Your task to perform on an android device: Add jbl flip 4 to the cart on ebay, then select checkout. Image 0: 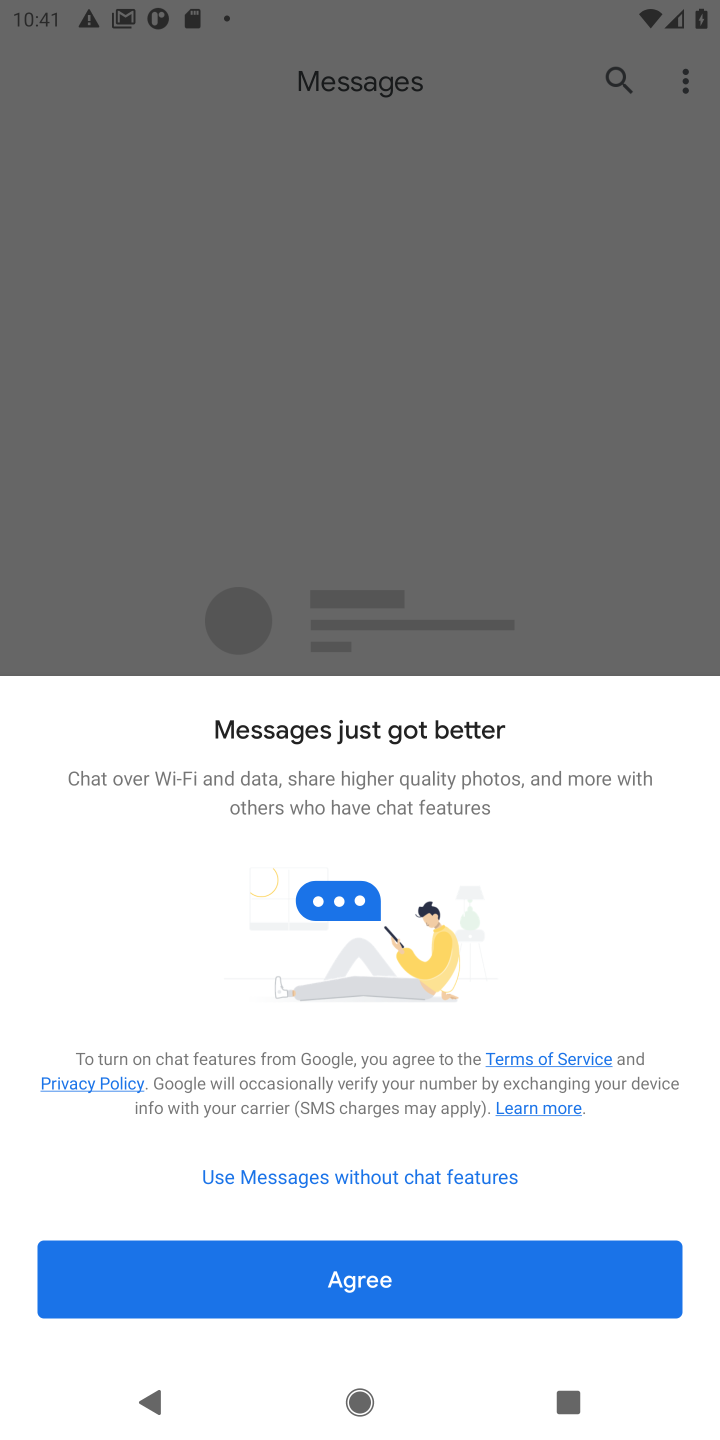
Step 0: press home button
Your task to perform on an android device: Add jbl flip 4 to the cart on ebay, then select checkout. Image 1: 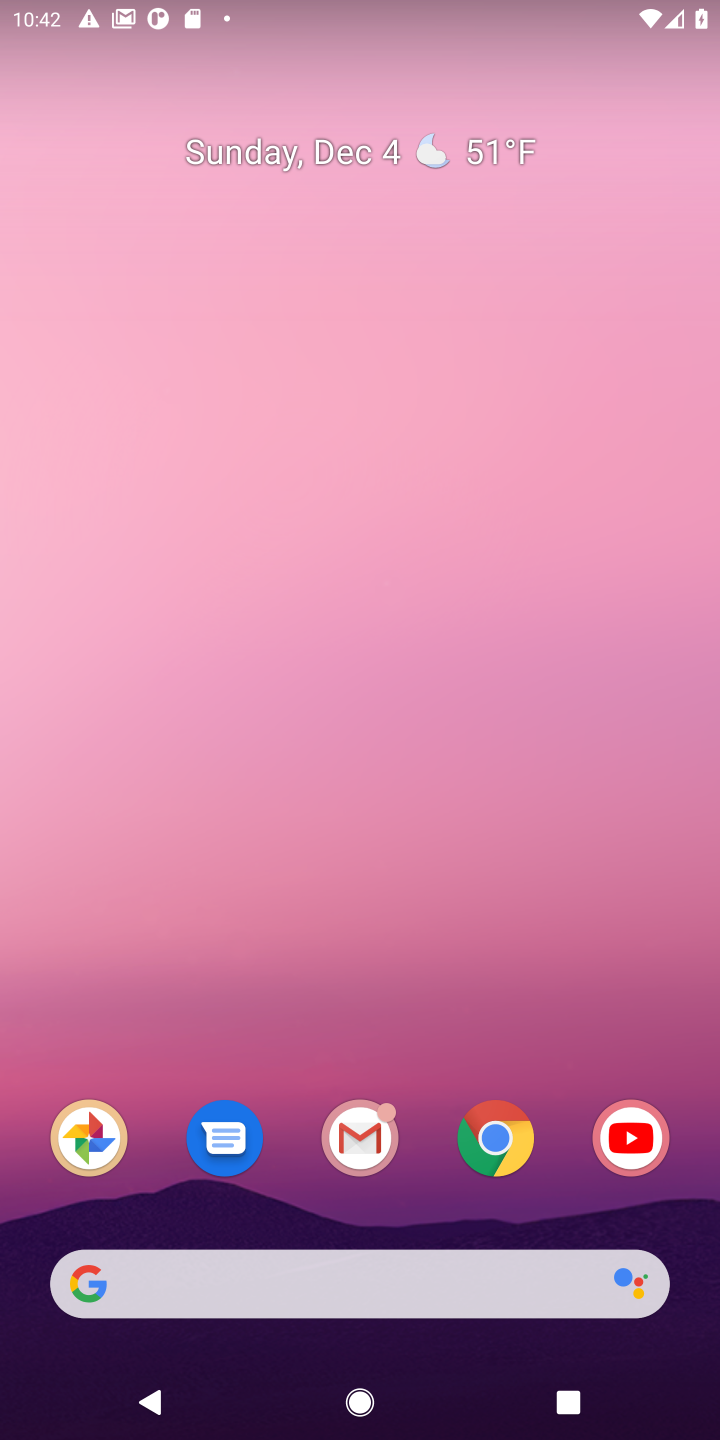
Step 1: click (499, 1141)
Your task to perform on an android device: Add jbl flip 4 to the cart on ebay, then select checkout. Image 2: 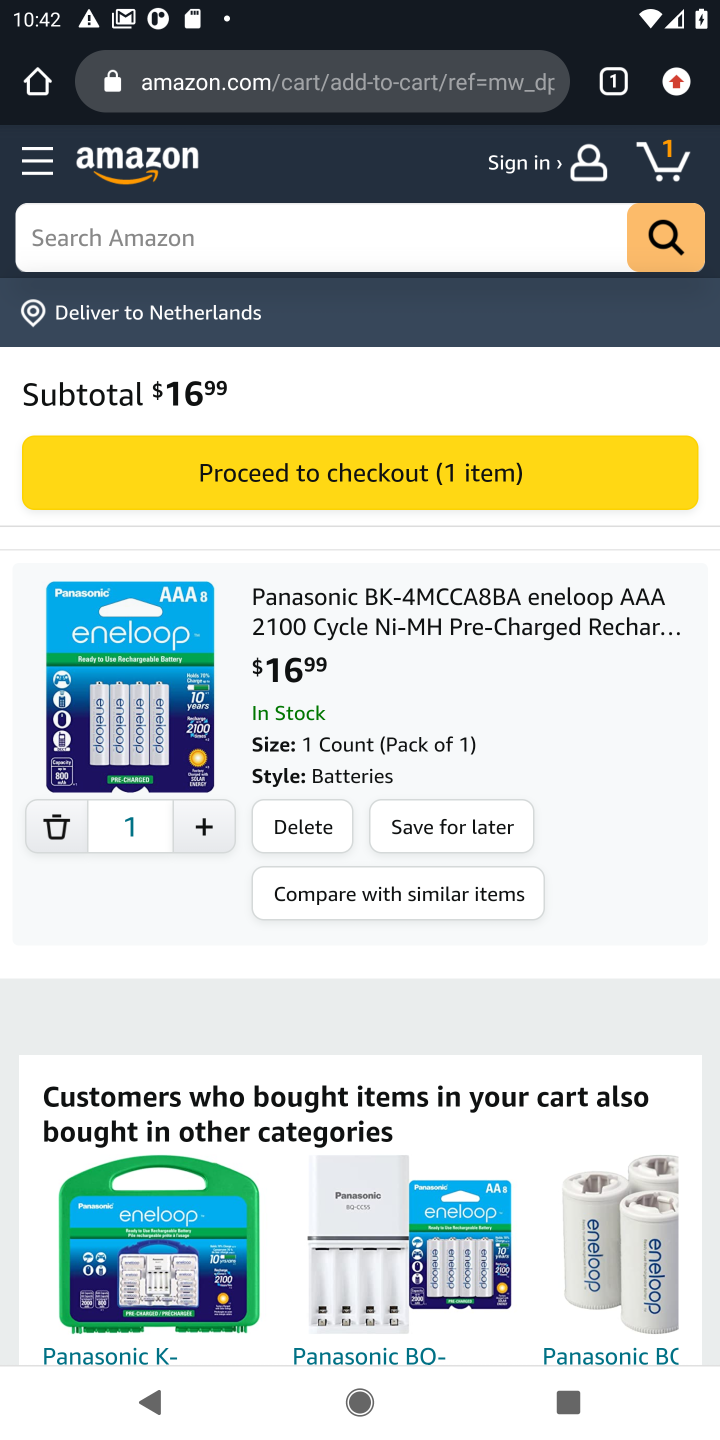
Step 2: click (405, 70)
Your task to perform on an android device: Add jbl flip 4 to the cart on ebay, then select checkout. Image 3: 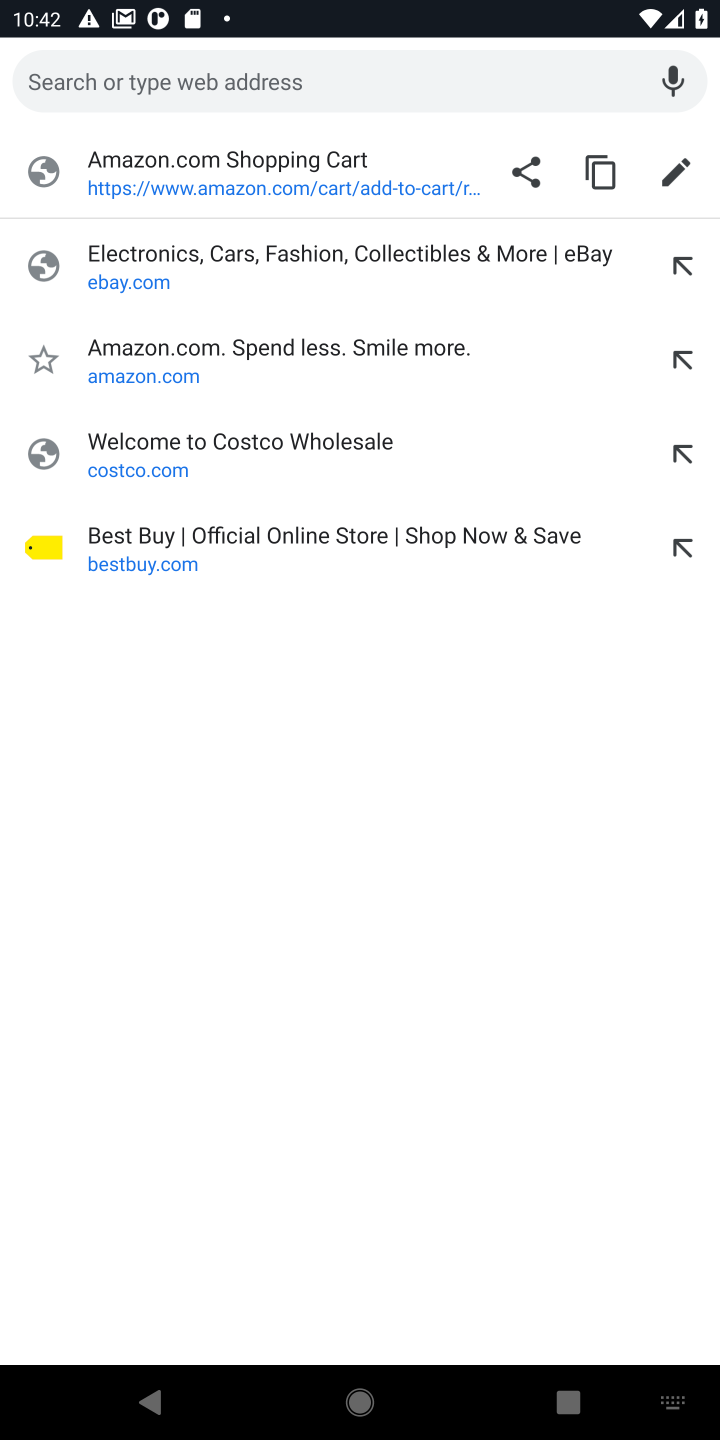
Step 3: click (266, 243)
Your task to perform on an android device: Add jbl flip 4 to the cart on ebay, then select checkout. Image 4: 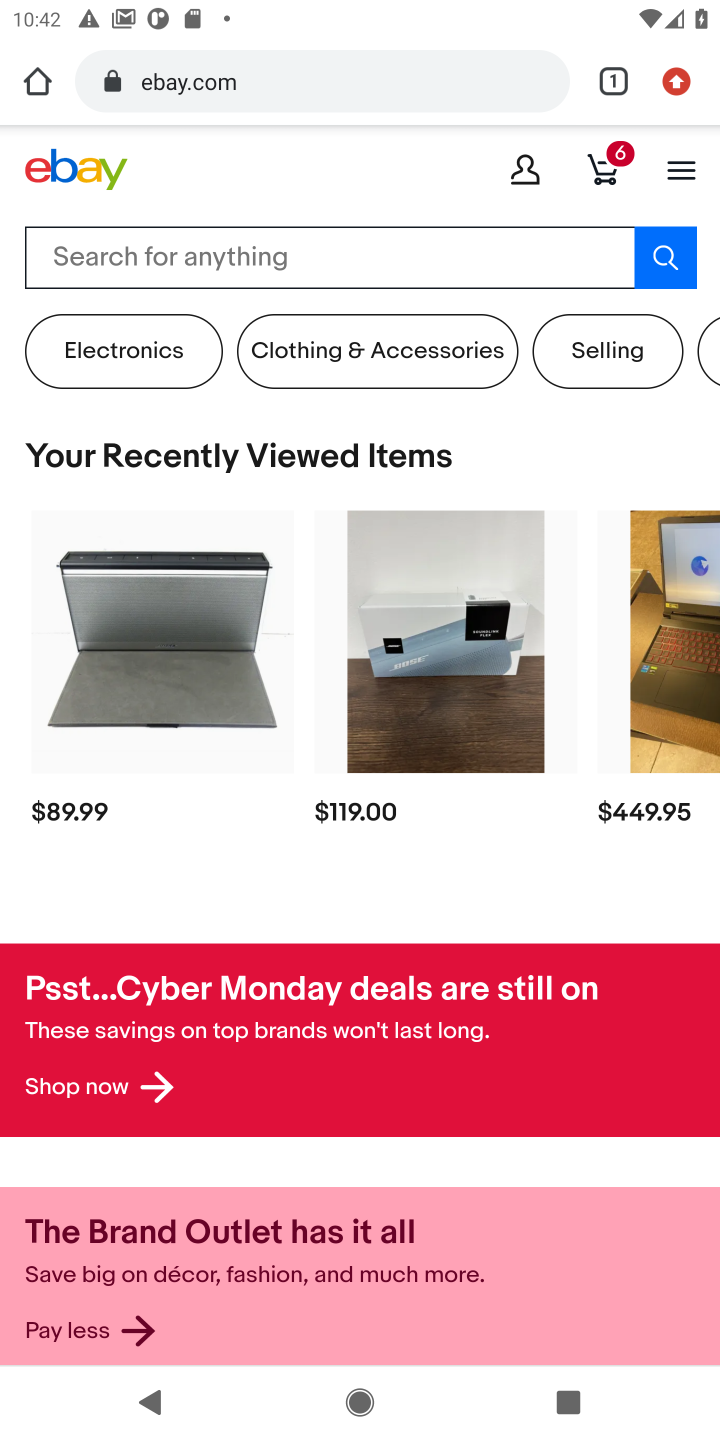
Step 4: click (301, 254)
Your task to perform on an android device: Add jbl flip 4 to the cart on ebay, then select checkout. Image 5: 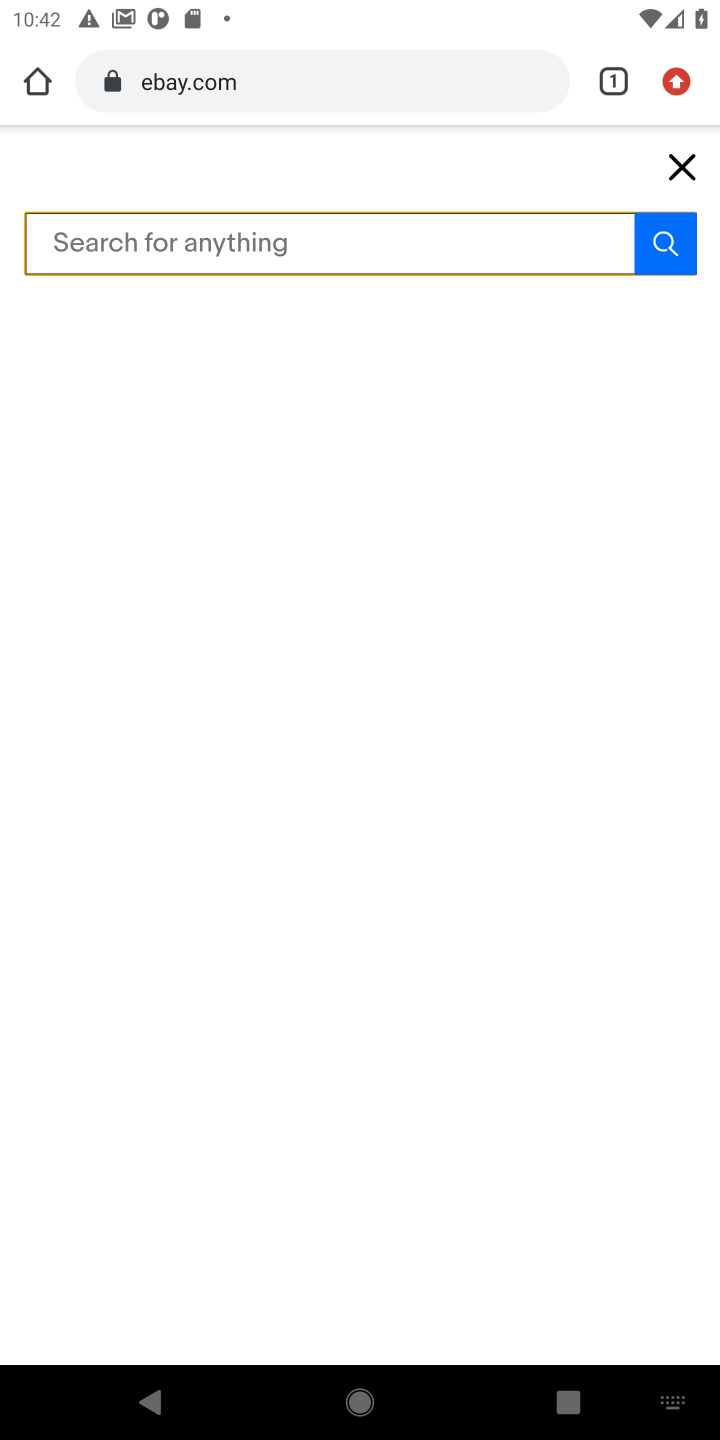
Step 5: type "jbl flip 4"
Your task to perform on an android device: Add jbl flip 4 to the cart on ebay, then select checkout. Image 6: 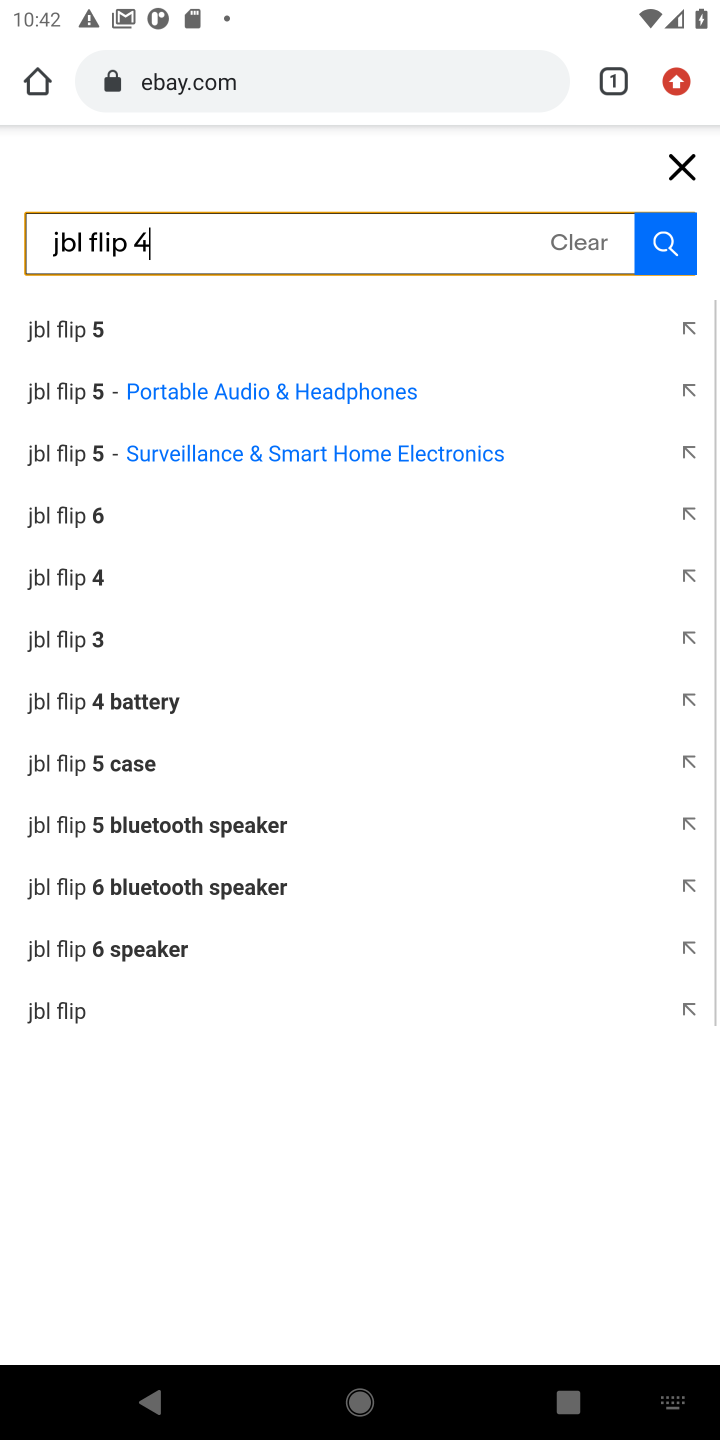
Step 6: press enter
Your task to perform on an android device: Add jbl flip 4 to the cart on ebay, then select checkout. Image 7: 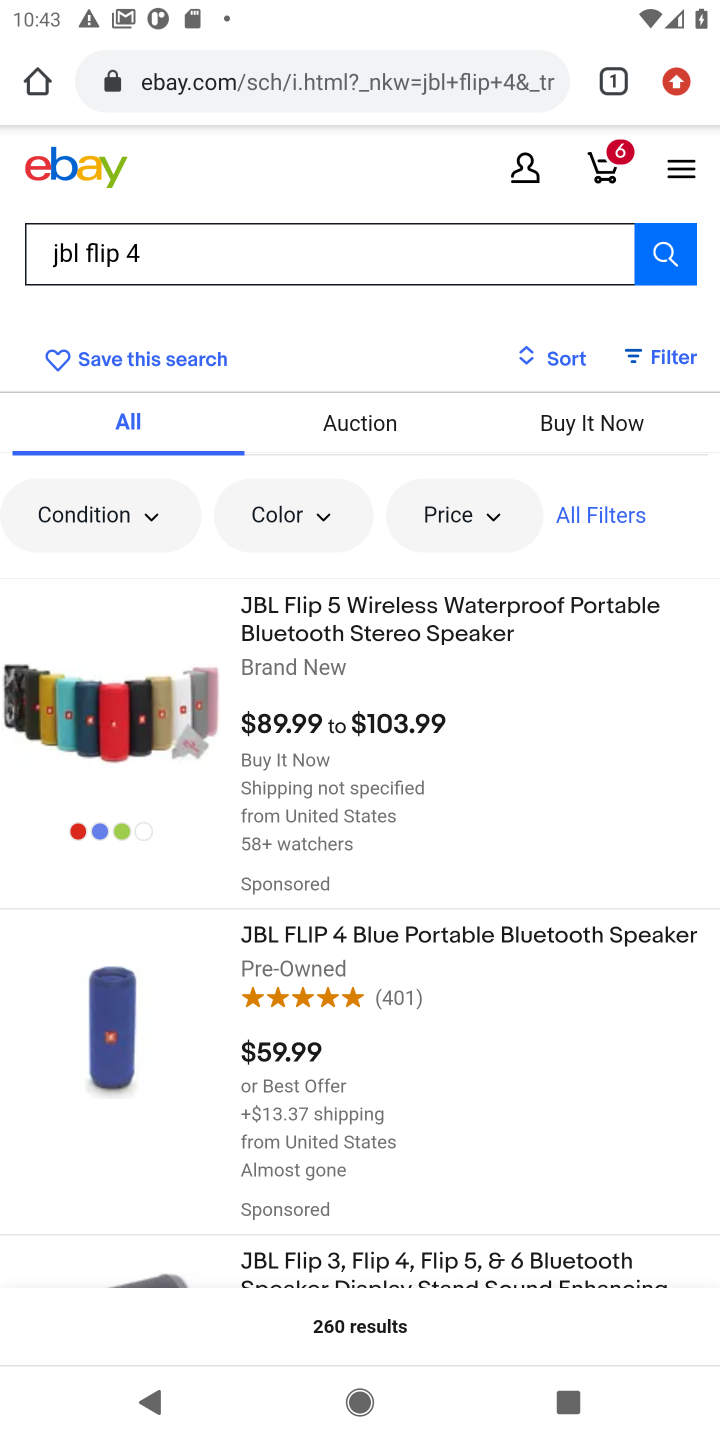
Step 7: click (84, 1056)
Your task to perform on an android device: Add jbl flip 4 to the cart on ebay, then select checkout. Image 8: 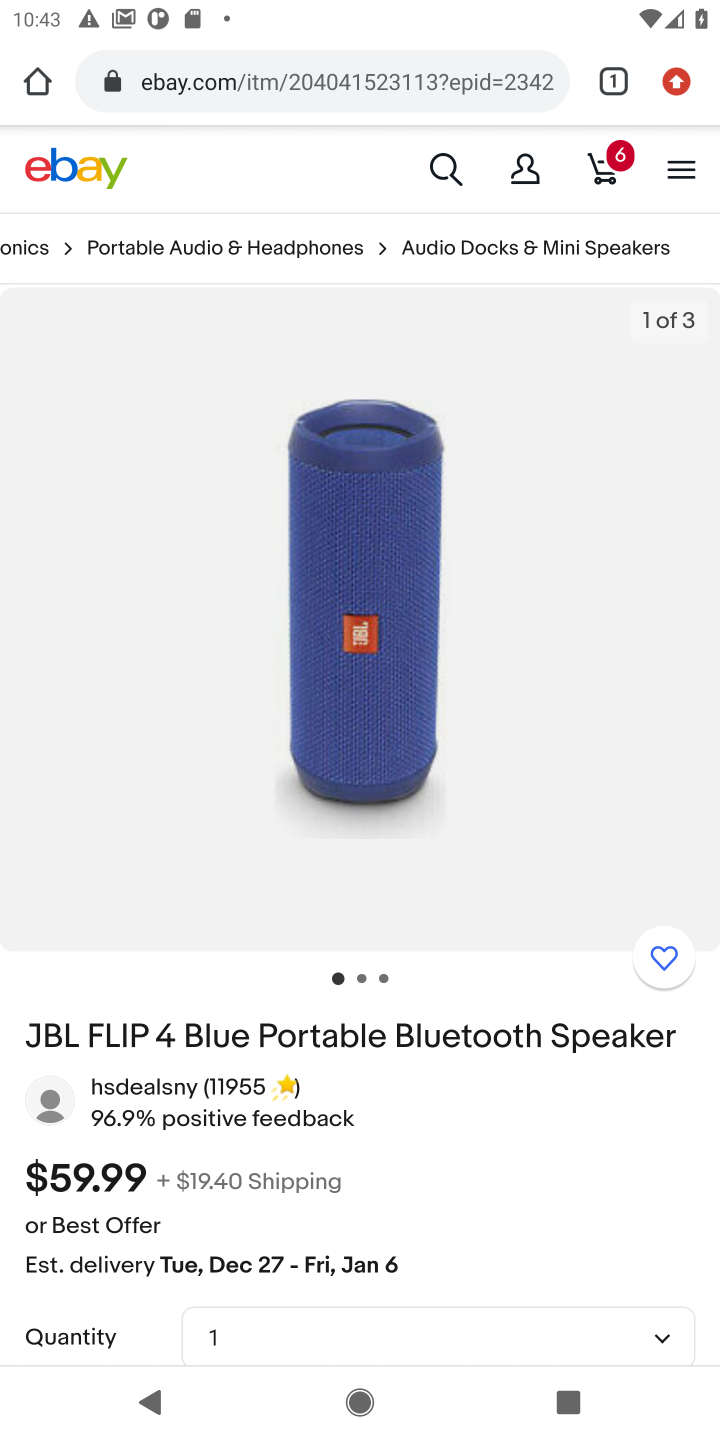
Step 8: drag from (586, 1082) to (491, 545)
Your task to perform on an android device: Add jbl flip 4 to the cart on ebay, then select checkout. Image 9: 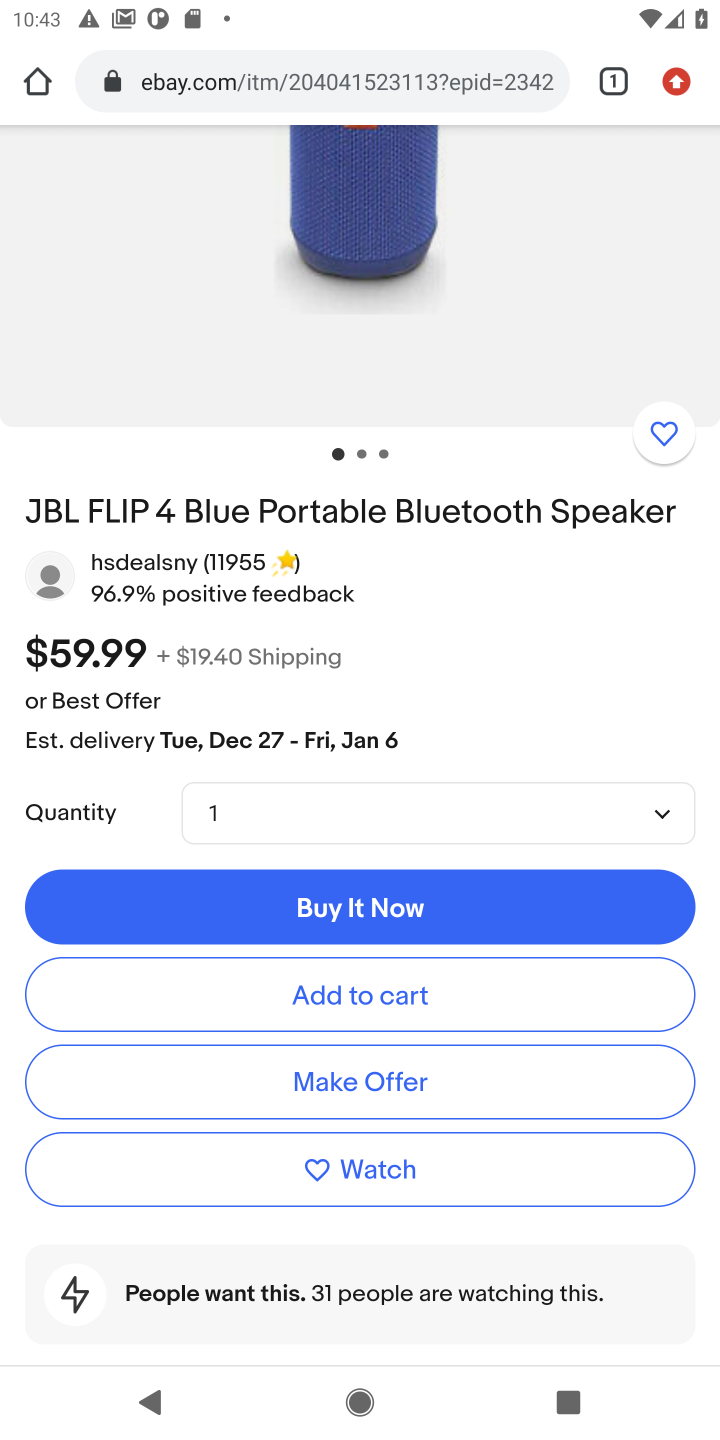
Step 9: click (365, 992)
Your task to perform on an android device: Add jbl flip 4 to the cart on ebay, then select checkout. Image 10: 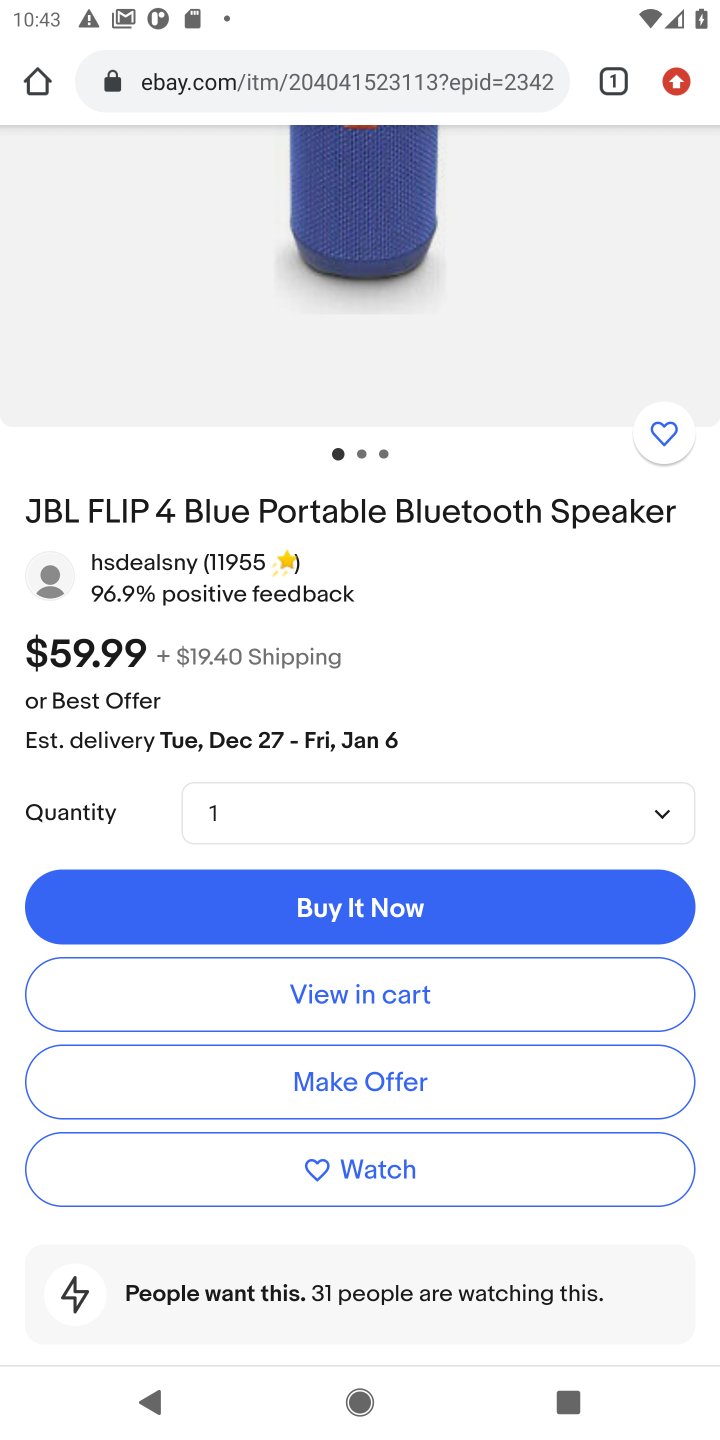
Step 10: click (365, 992)
Your task to perform on an android device: Add jbl flip 4 to the cart on ebay, then select checkout. Image 11: 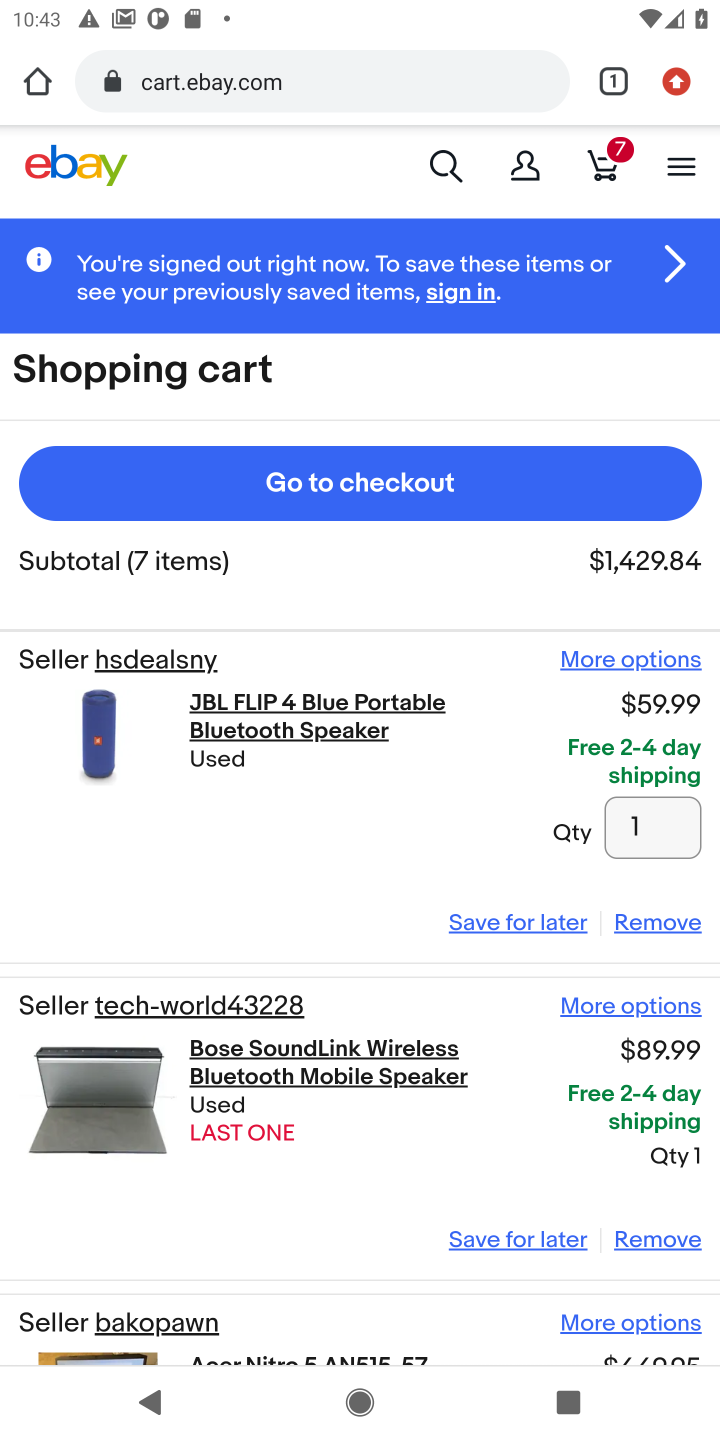
Step 11: click (412, 484)
Your task to perform on an android device: Add jbl flip 4 to the cart on ebay, then select checkout. Image 12: 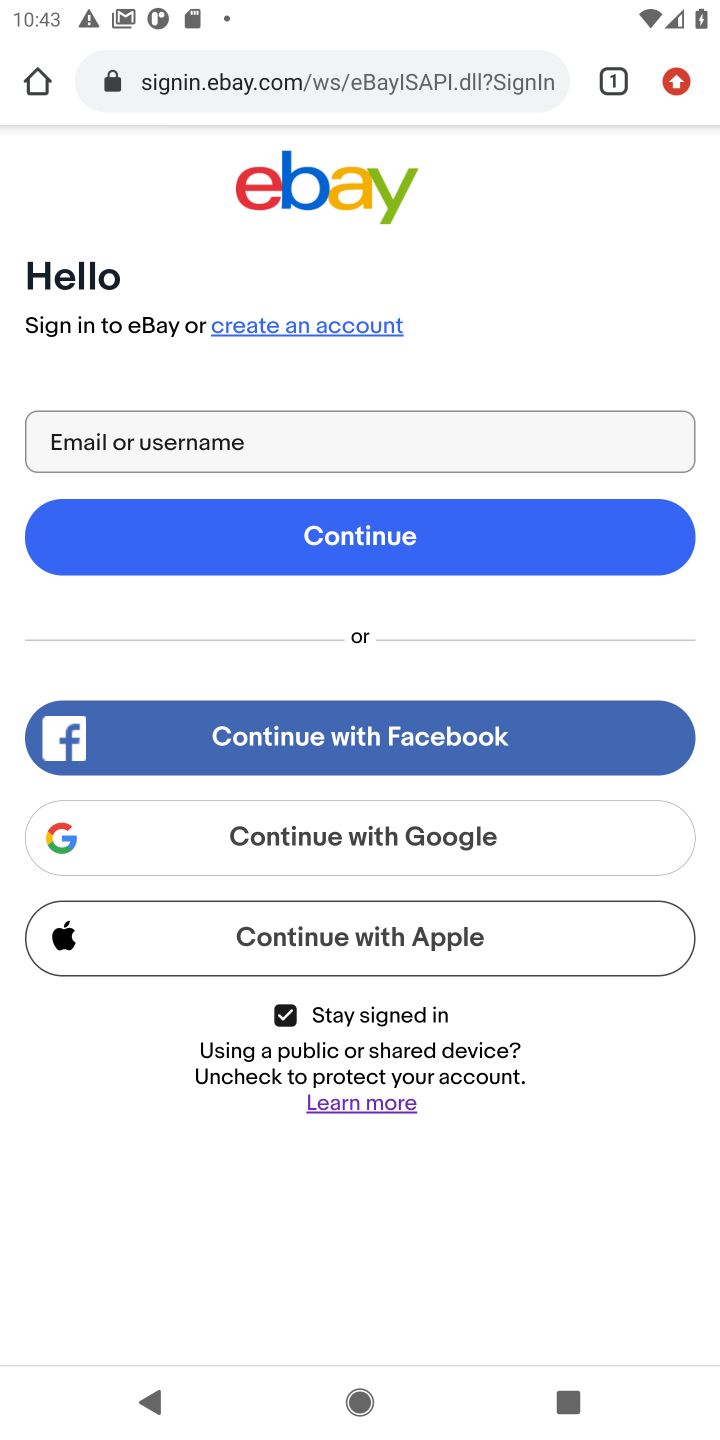
Step 12: task complete